Your task to perform on an android device: Clear the shopping cart on ebay. Add "jbl flip 4" to the cart on ebay Image 0: 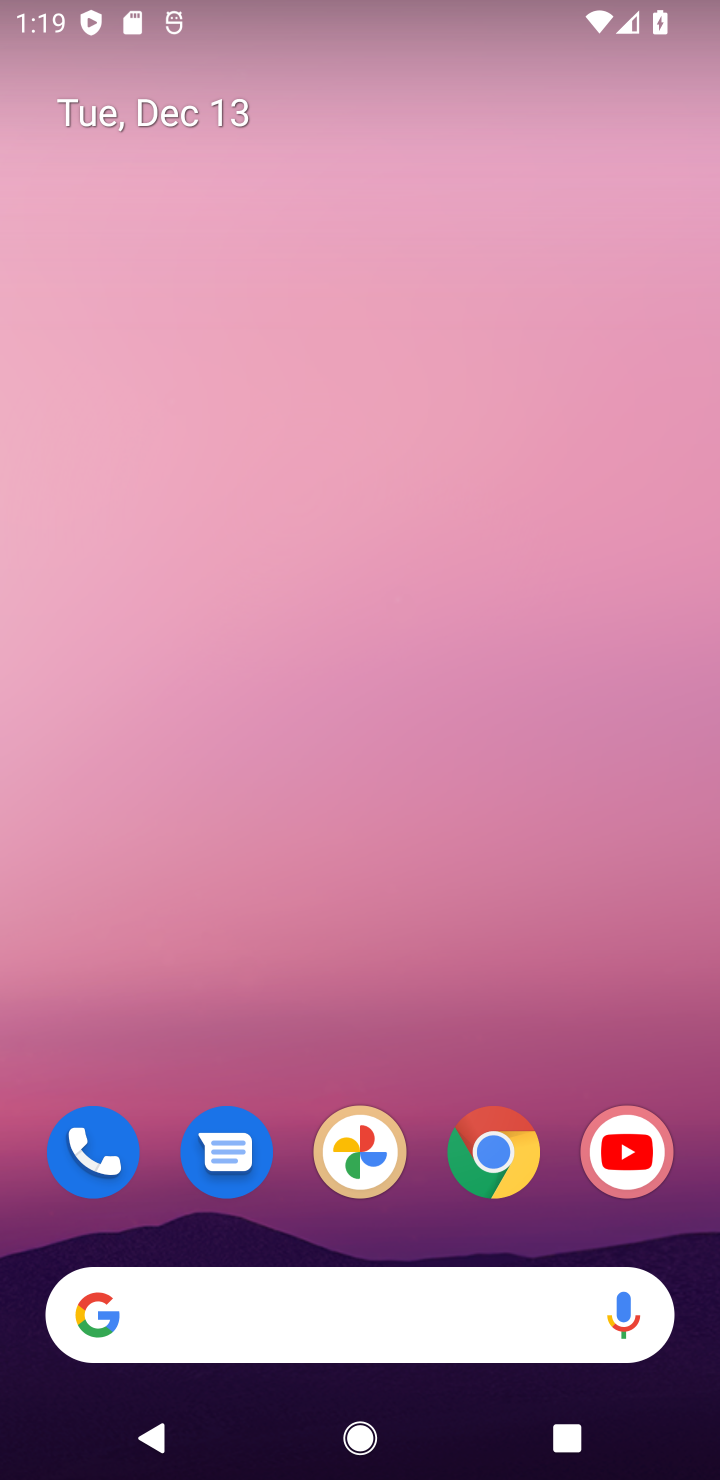
Step 0: drag from (251, 700) to (247, 347)
Your task to perform on an android device: Clear the shopping cart on ebay. Add "jbl flip 4" to the cart on ebay Image 1: 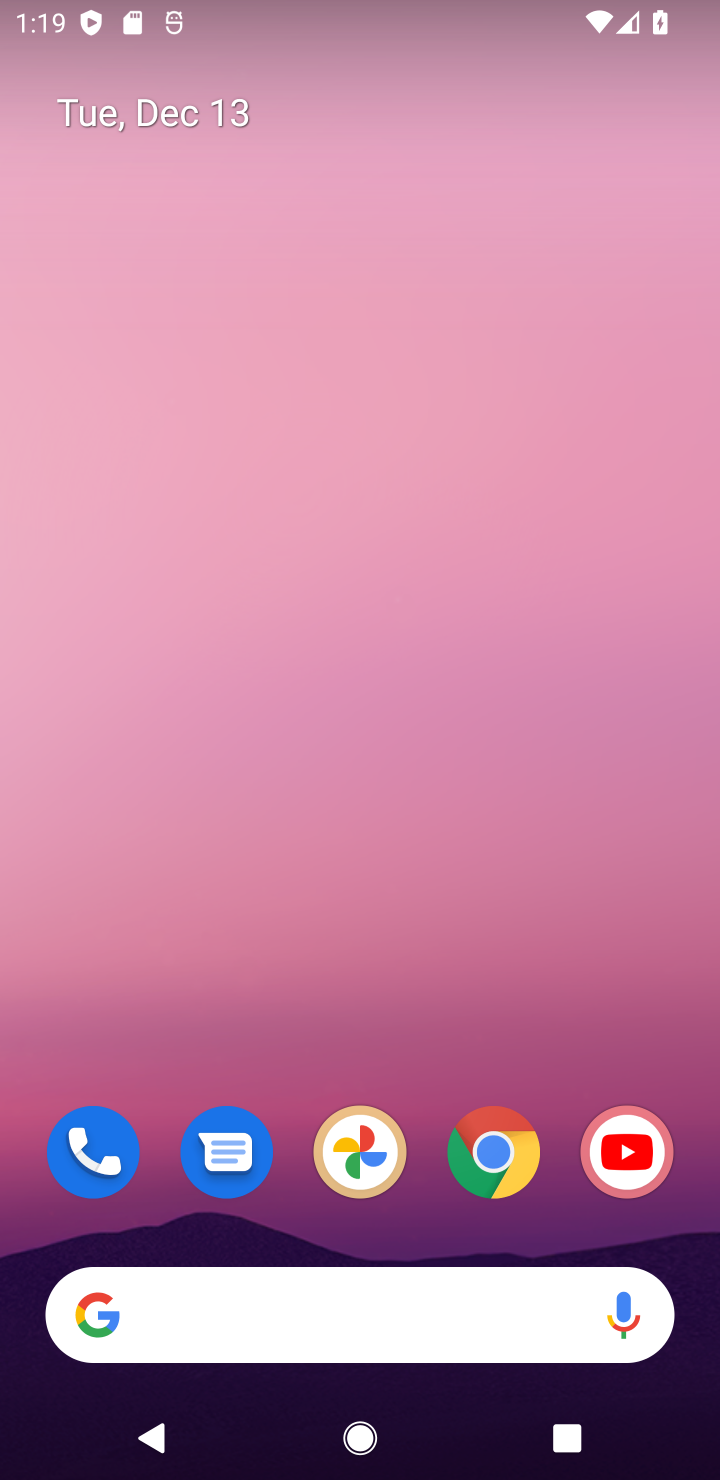
Step 1: drag from (389, 1275) to (405, 531)
Your task to perform on an android device: Clear the shopping cart on ebay. Add "jbl flip 4" to the cart on ebay Image 2: 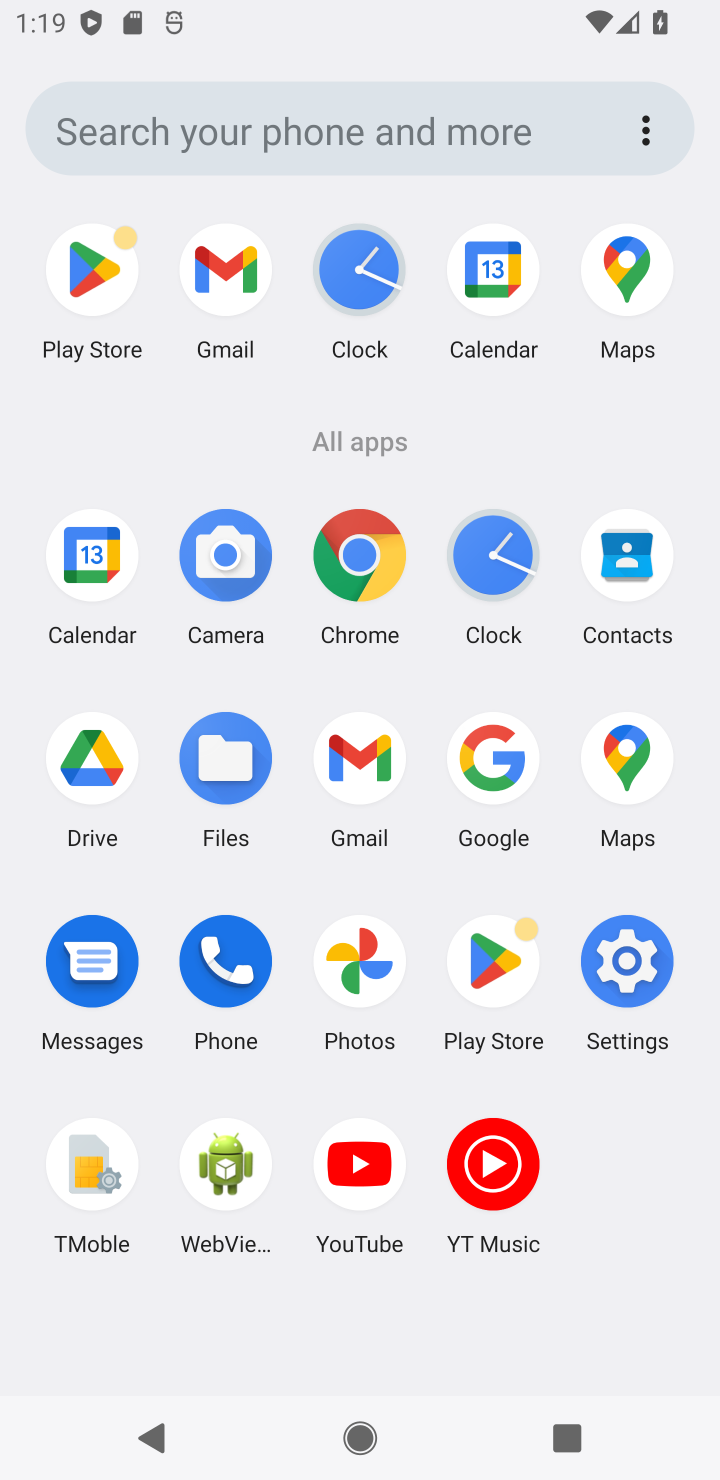
Step 2: click (496, 751)
Your task to perform on an android device: Clear the shopping cart on ebay. Add "jbl flip 4" to the cart on ebay Image 3: 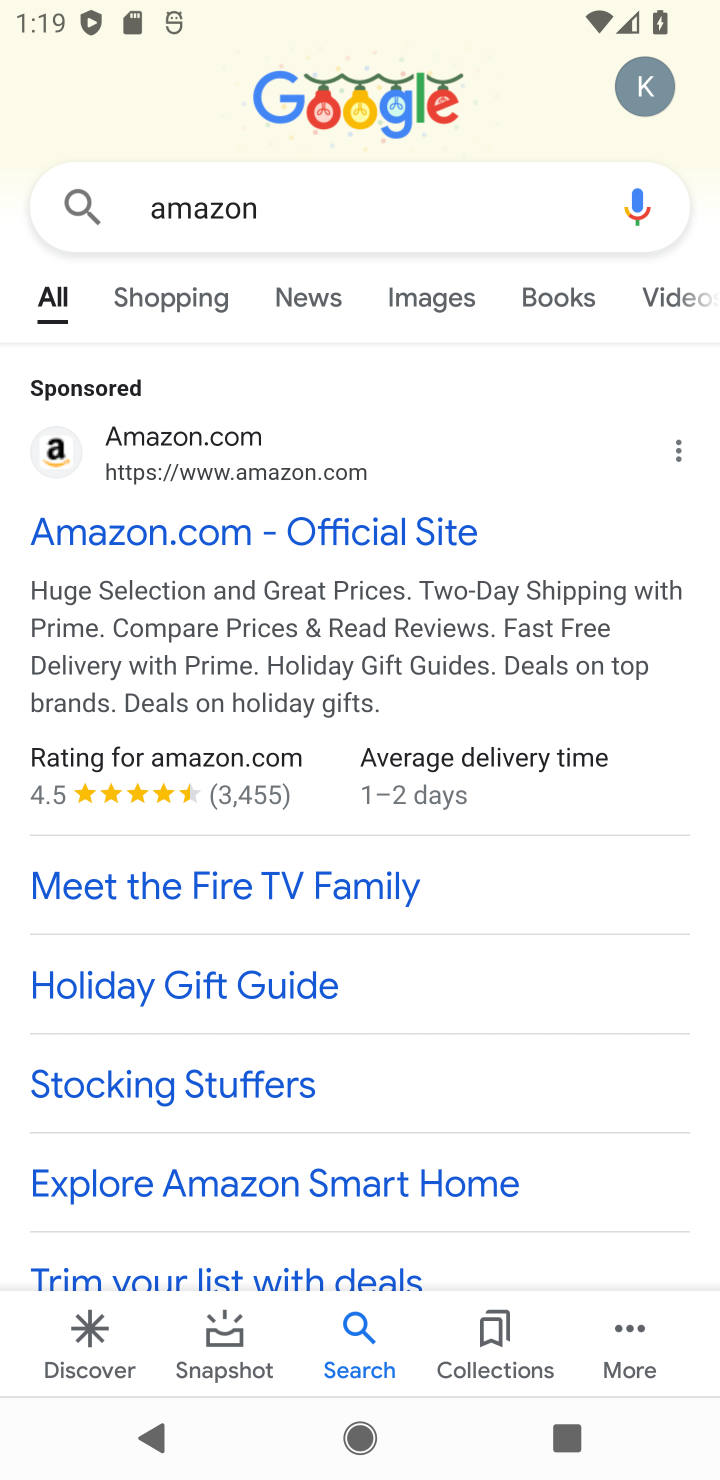
Step 3: click (198, 192)
Your task to perform on an android device: Clear the shopping cart on ebay. Add "jbl flip 4" to the cart on ebay Image 4: 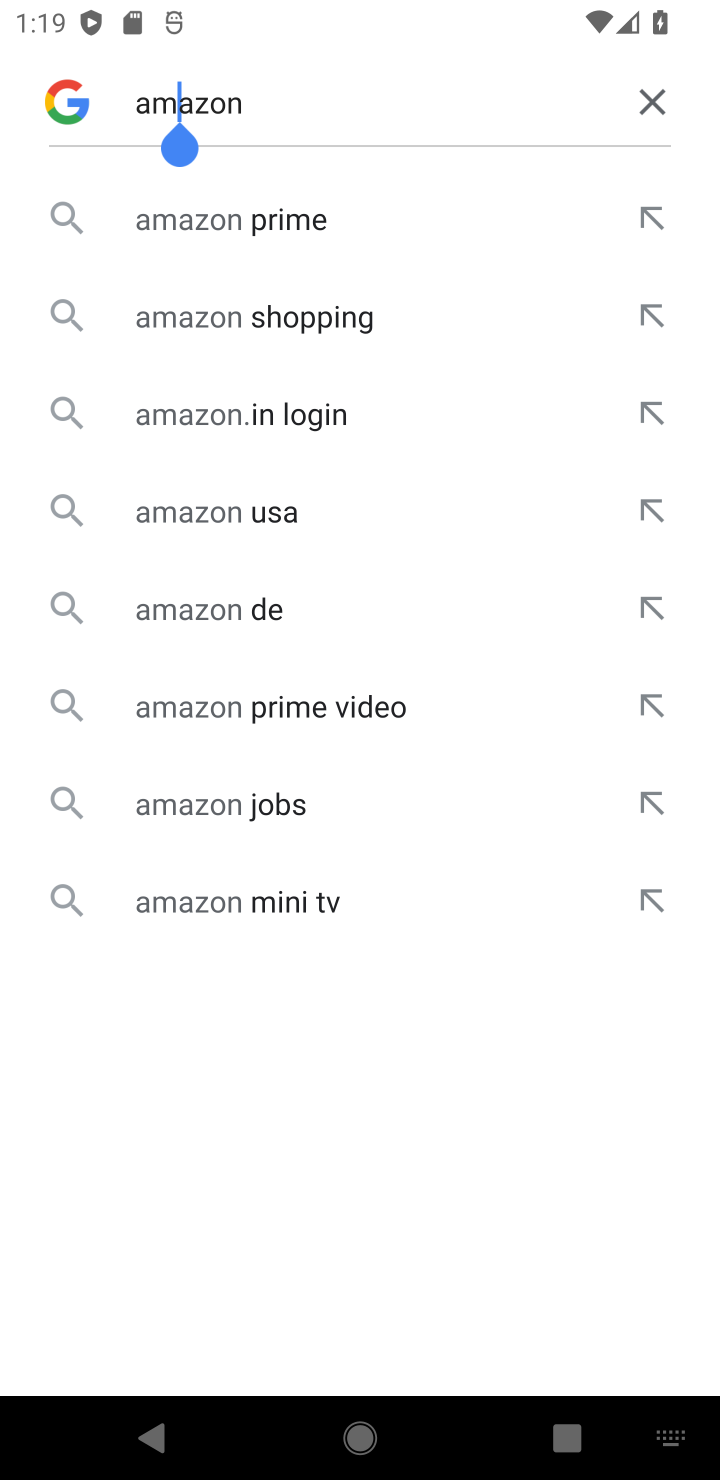
Step 4: click (650, 109)
Your task to perform on an android device: Clear the shopping cart on ebay. Add "jbl flip 4" to the cart on ebay Image 5: 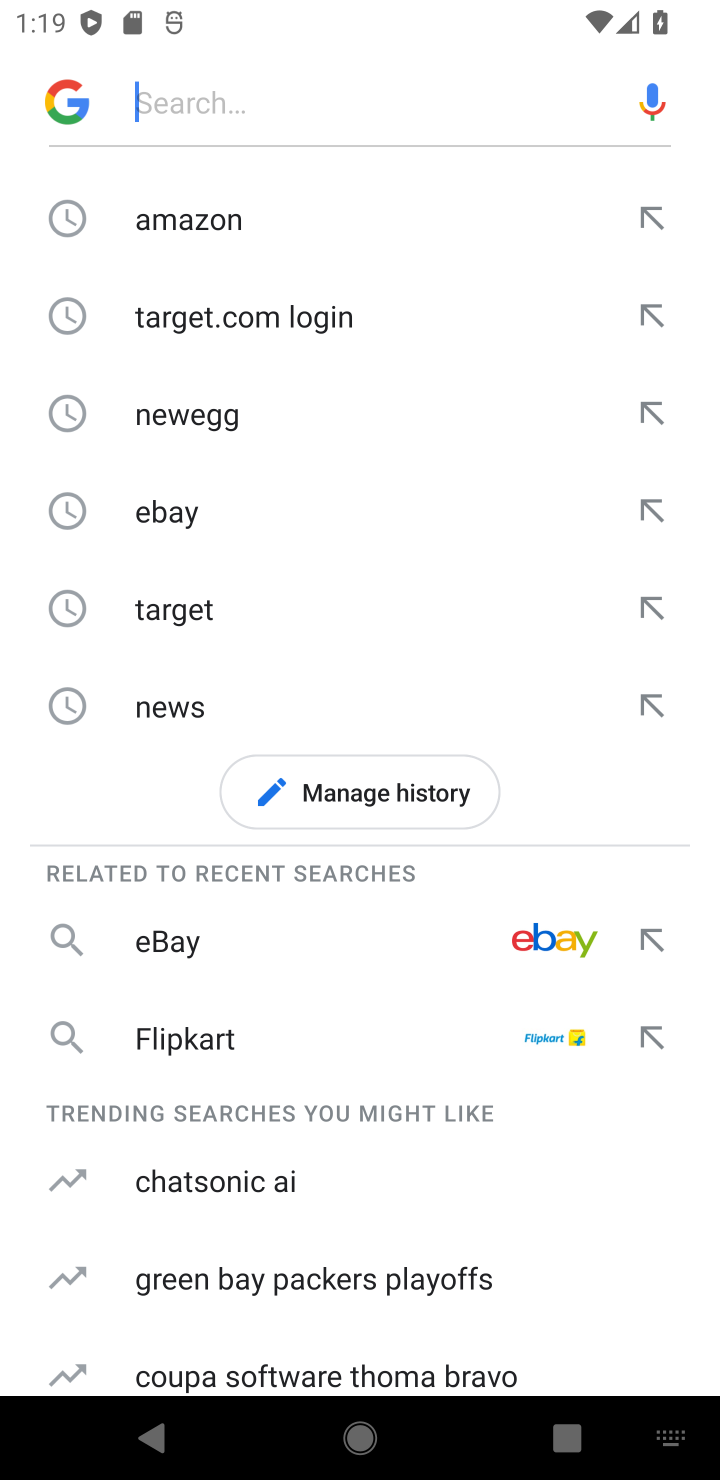
Step 5: click (190, 522)
Your task to perform on an android device: Clear the shopping cart on ebay. Add "jbl flip 4" to the cart on ebay Image 6: 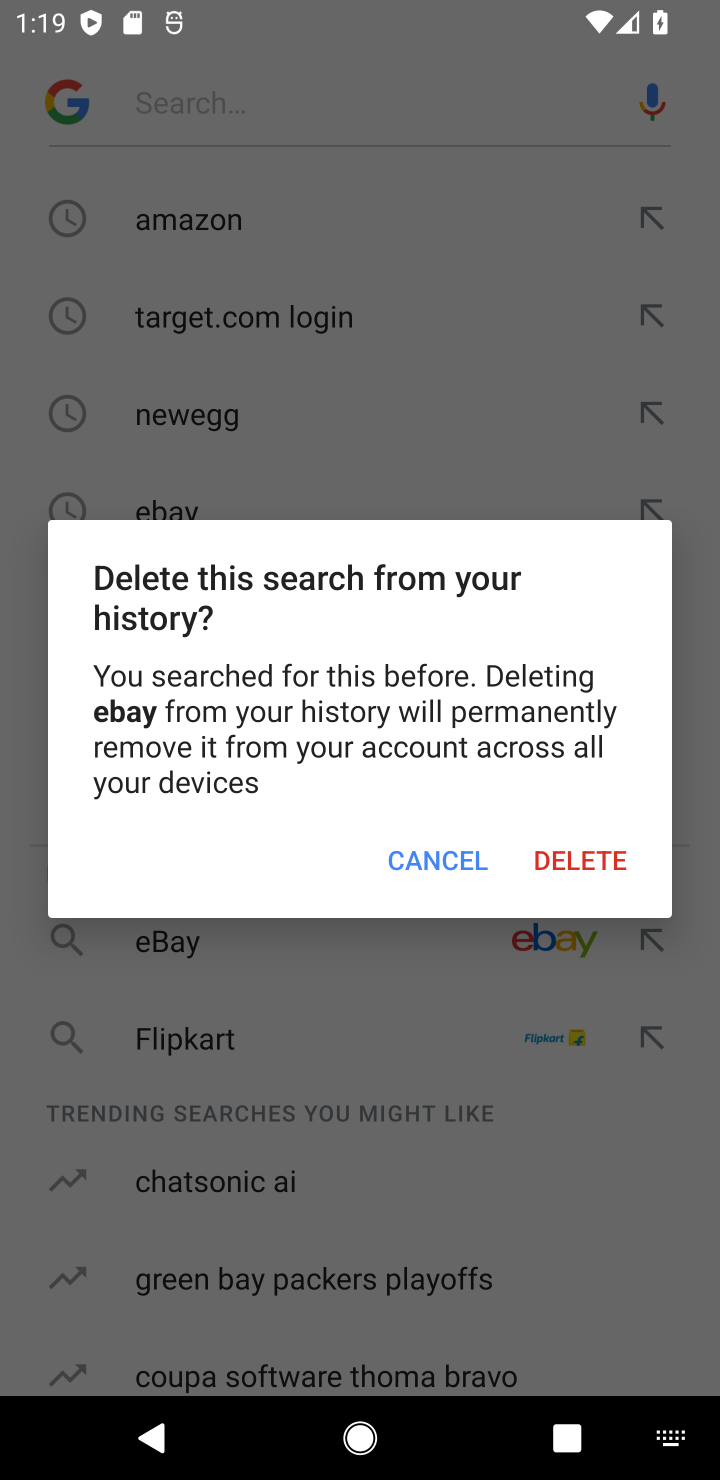
Step 6: click (391, 854)
Your task to perform on an android device: Clear the shopping cart on ebay. Add "jbl flip 4" to the cart on ebay Image 7: 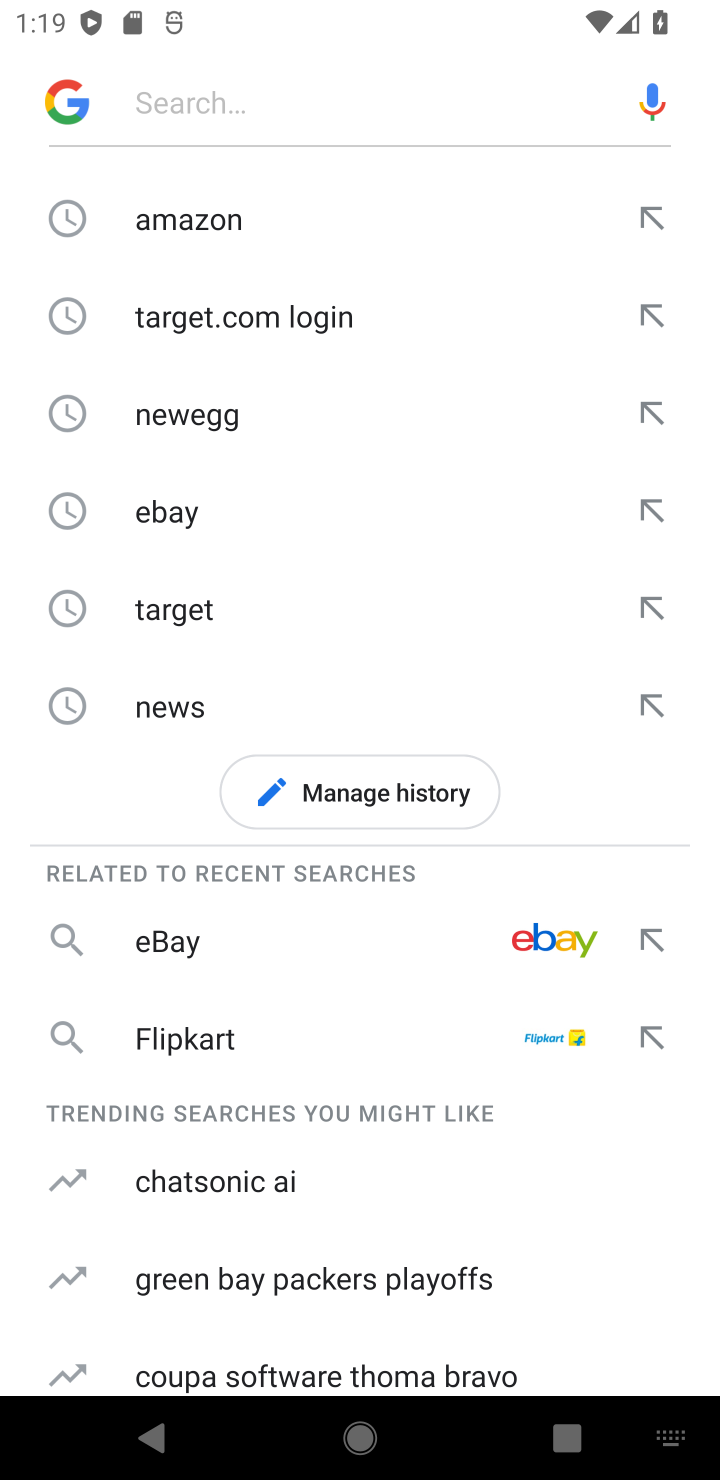
Step 7: click (661, 498)
Your task to perform on an android device: Clear the shopping cart on ebay. Add "jbl flip 4" to the cart on ebay Image 8: 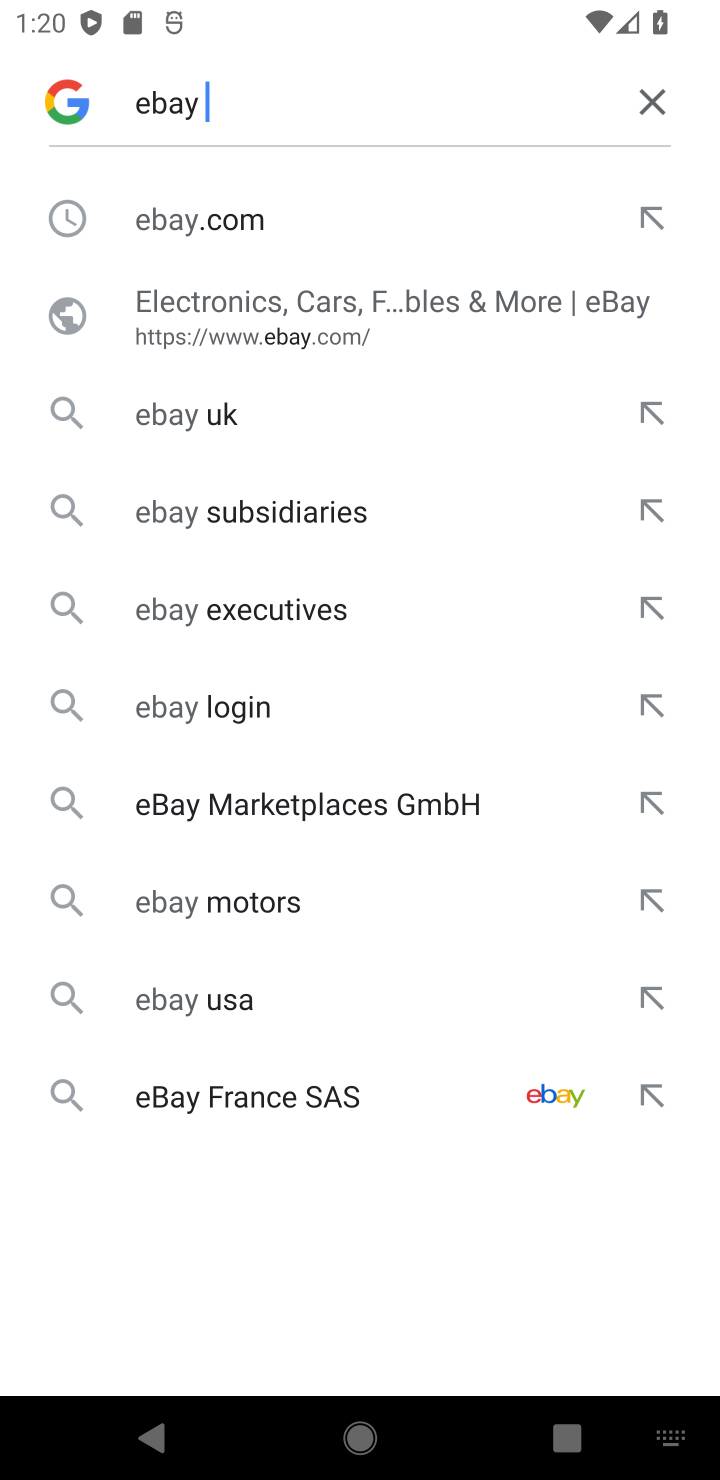
Step 8: click (210, 320)
Your task to perform on an android device: Clear the shopping cart on ebay. Add "jbl flip 4" to the cart on ebay Image 9: 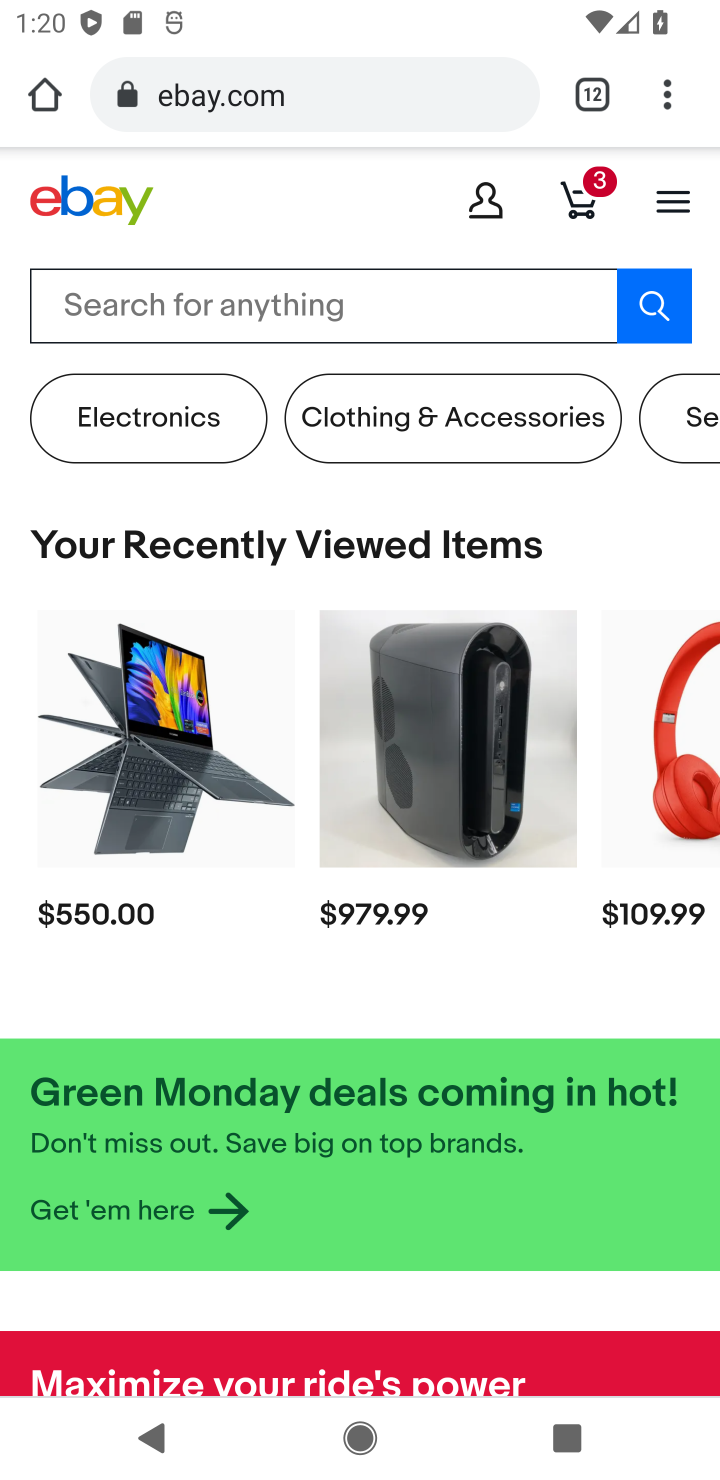
Step 9: click (182, 287)
Your task to perform on an android device: Clear the shopping cart on ebay. Add "jbl flip 4" to the cart on ebay Image 10: 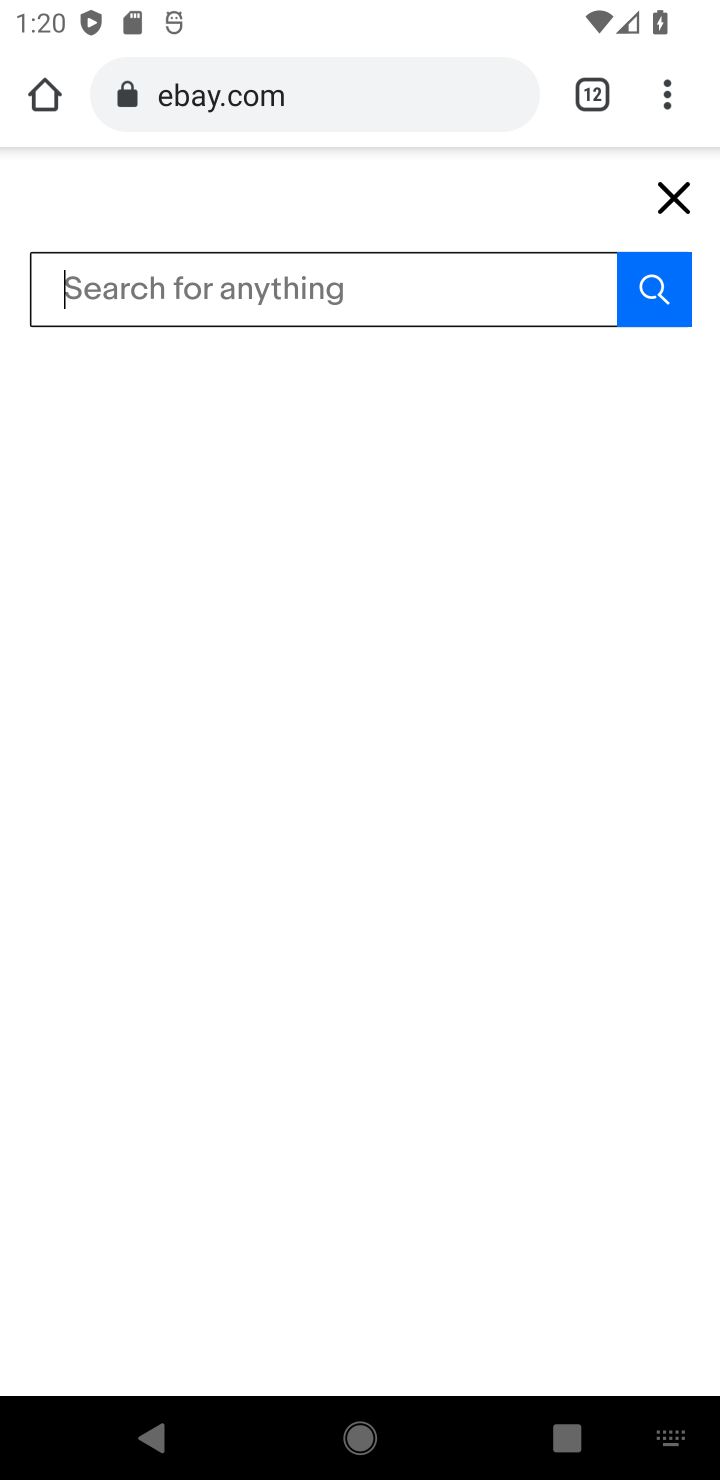
Step 10: type "jbl flip 4"
Your task to perform on an android device: Clear the shopping cart on ebay. Add "jbl flip 4" to the cart on ebay Image 11: 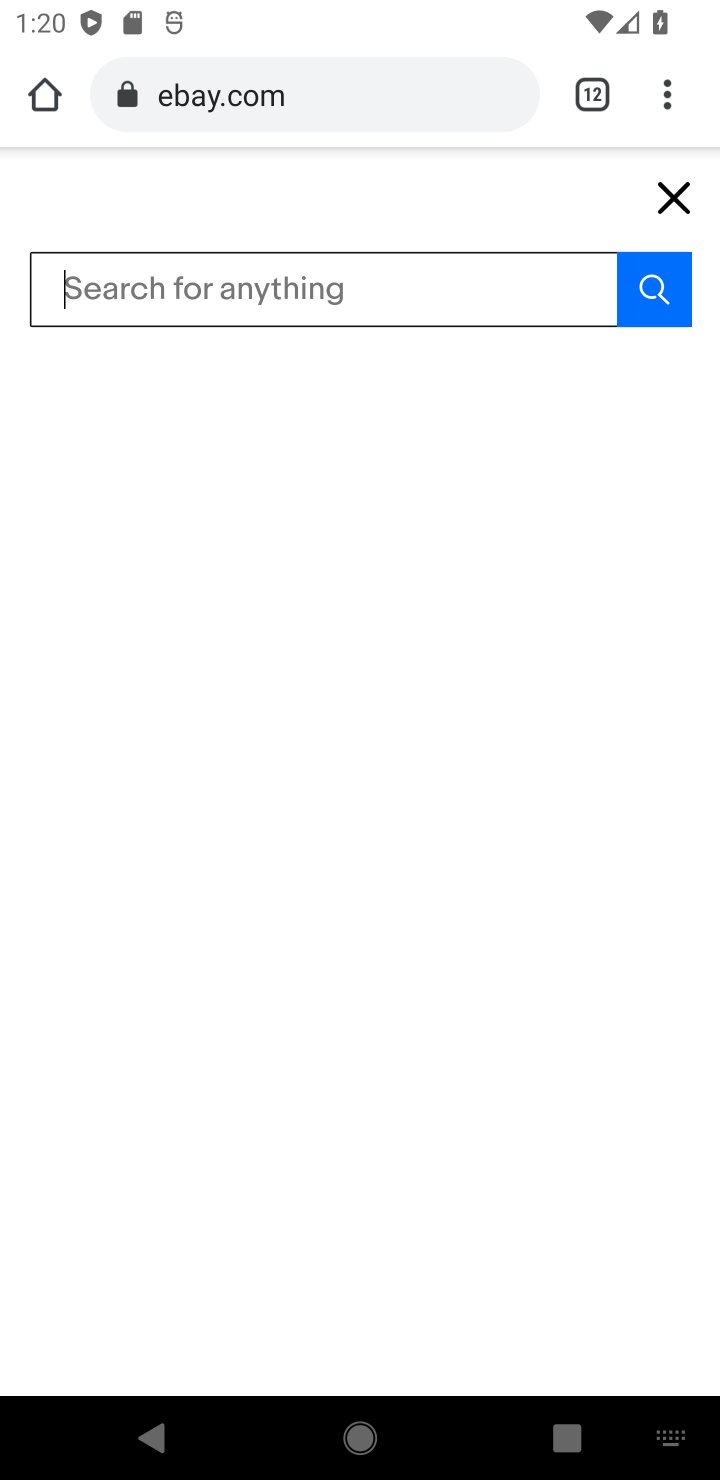
Step 11: click (656, 289)
Your task to perform on an android device: Clear the shopping cart on ebay. Add "jbl flip 4" to the cart on ebay Image 12: 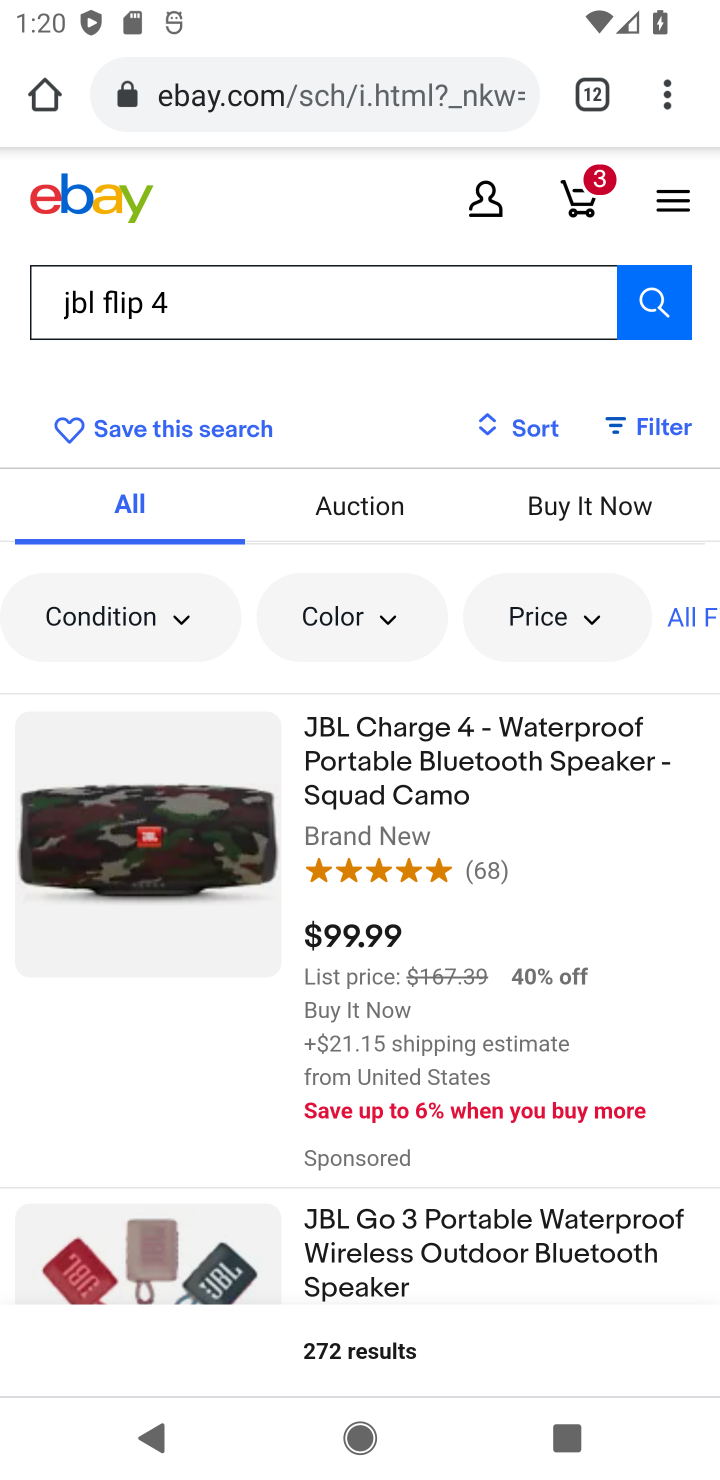
Step 12: click (224, 851)
Your task to perform on an android device: Clear the shopping cart on ebay. Add "jbl flip 4" to the cart on ebay Image 13: 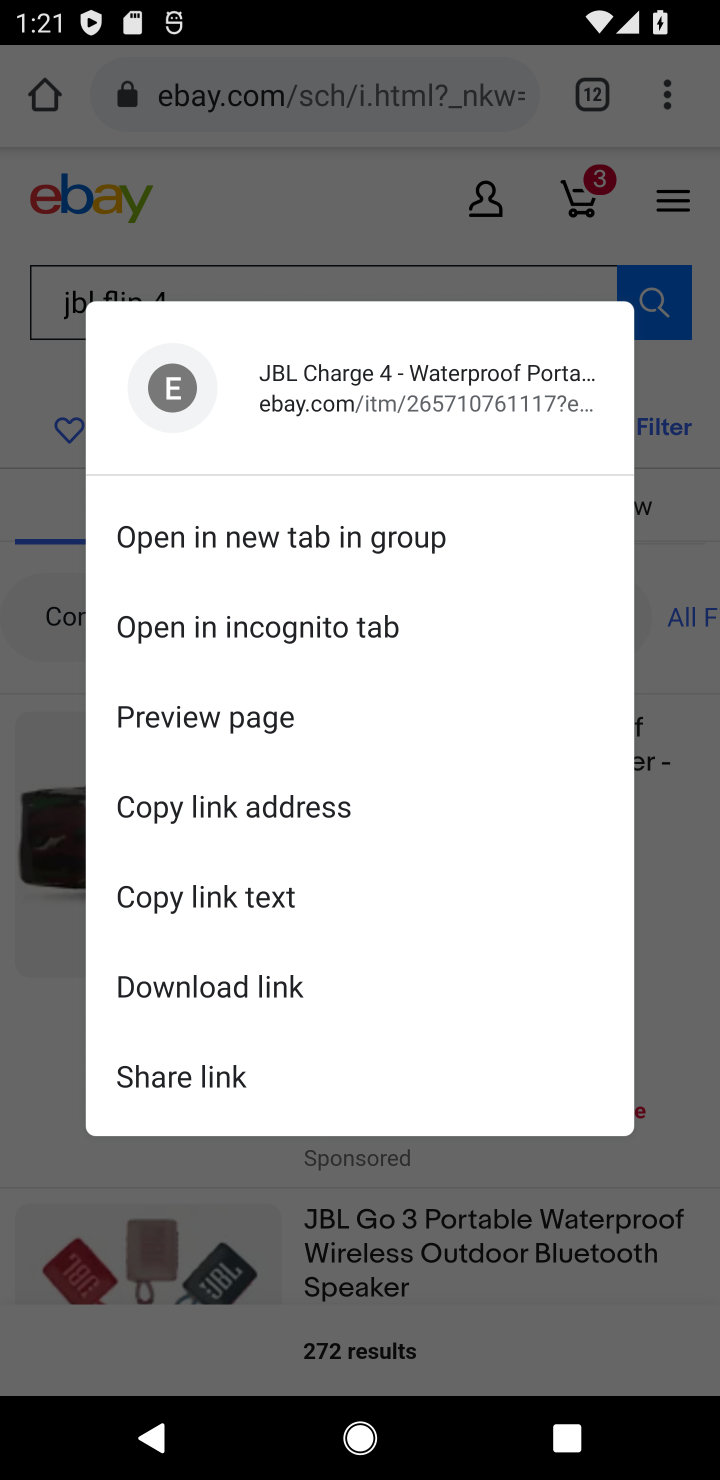
Step 13: click (36, 510)
Your task to perform on an android device: Clear the shopping cart on ebay. Add "jbl flip 4" to the cart on ebay Image 14: 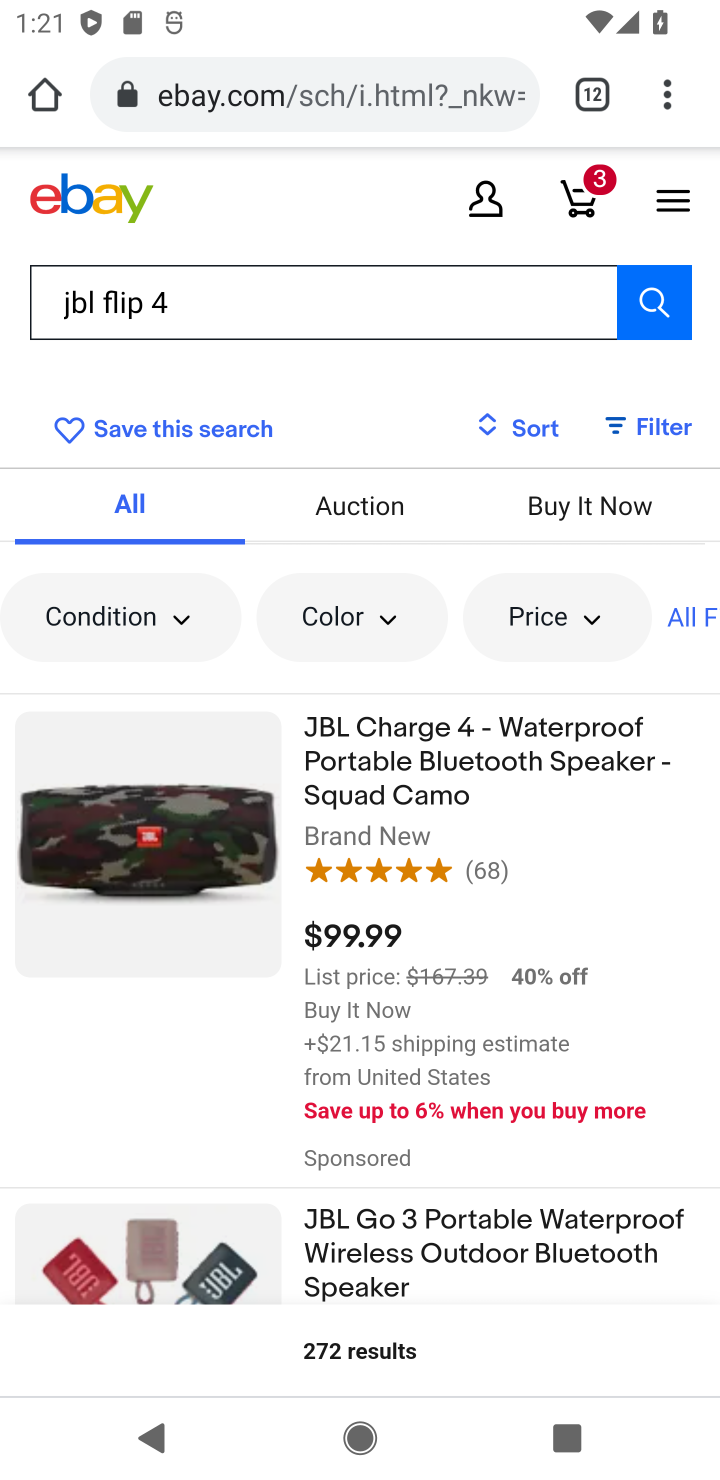
Step 14: click (402, 741)
Your task to perform on an android device: Clear the shopping cart on ebay. Add "jbl flip 4" to the cart on ebay Image 15: 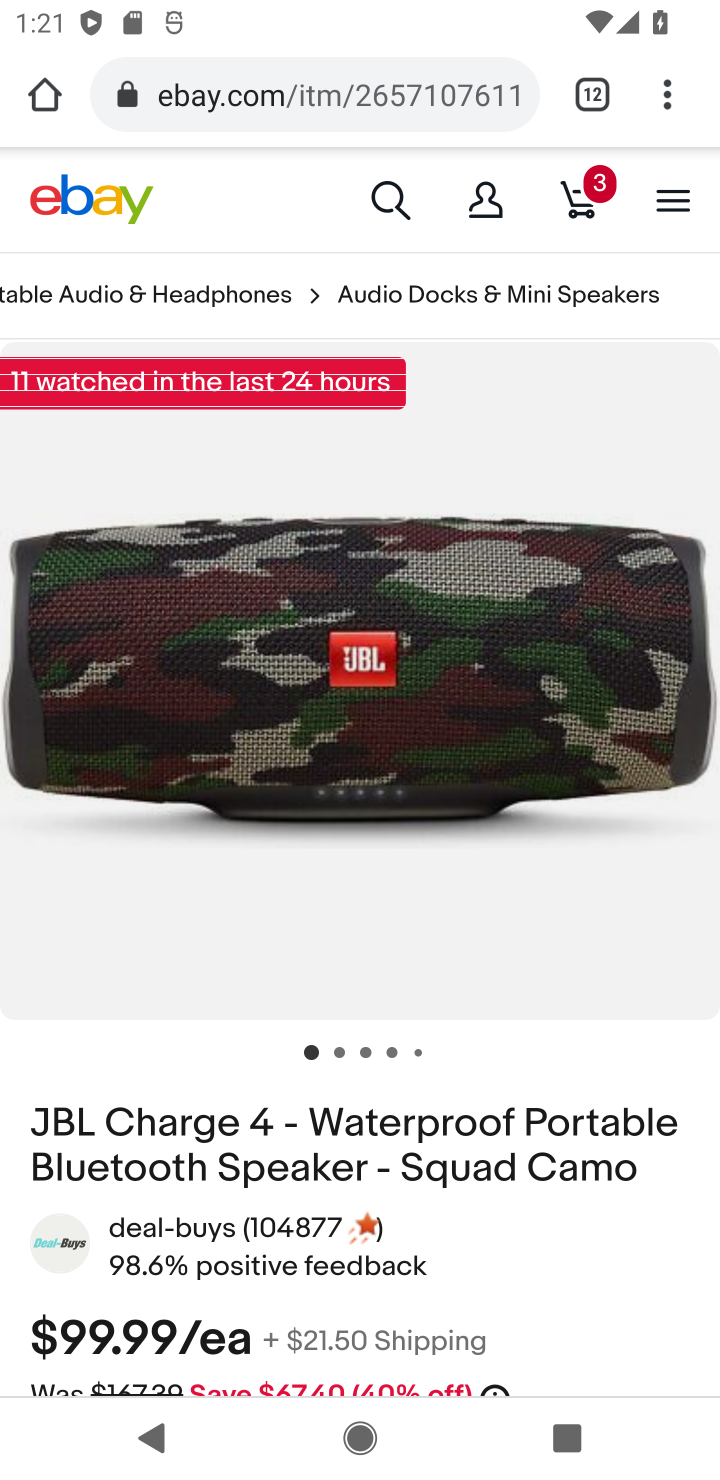
Step 15: drag from (490, 1214) to (444, 596)
Your task to perform on an android device: Clear the shopping cart on ebay. Add "jbl flip 4" to the cart on ebay Image 16: 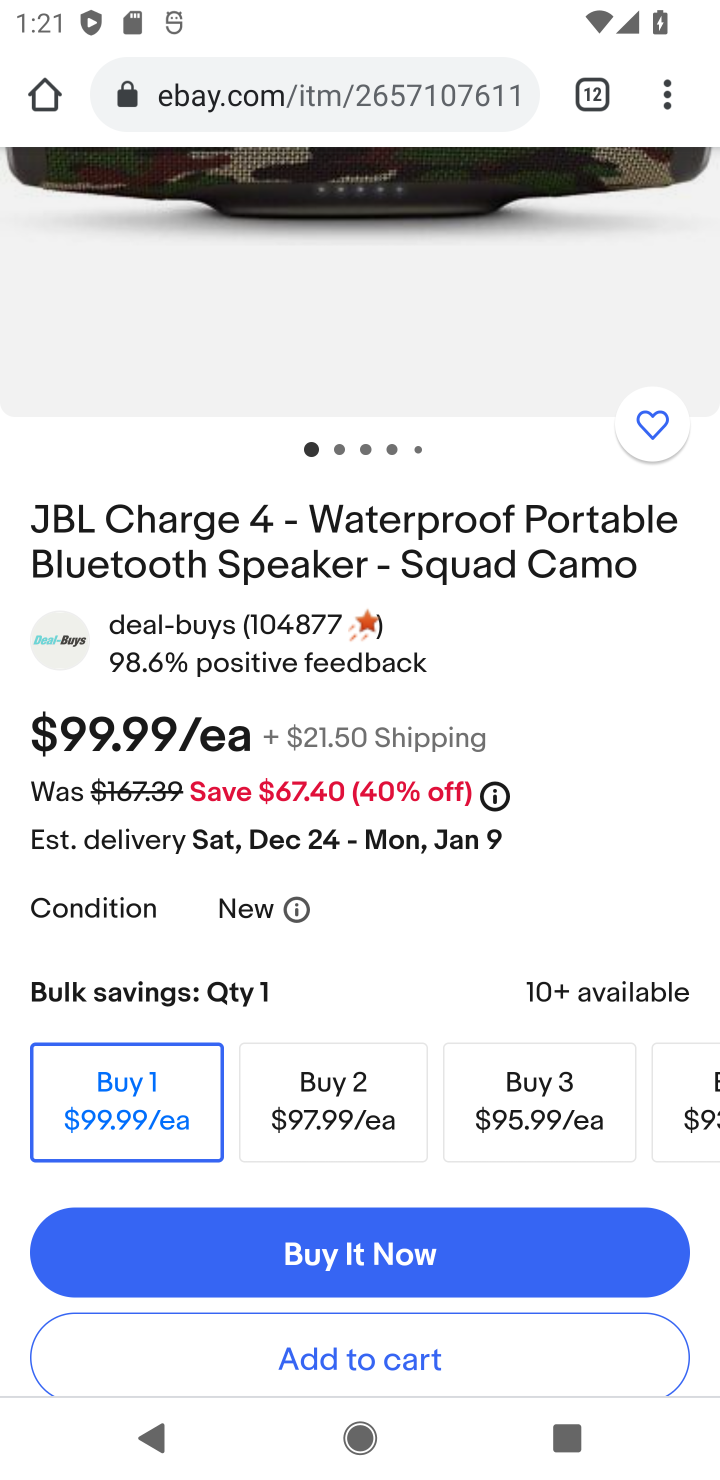
Step 16: click (402, 1346)
Your task to perform on an android device: Clear the shopping cart on ebay. Add "jbl flip 4" to the cart on ebay Image 17: 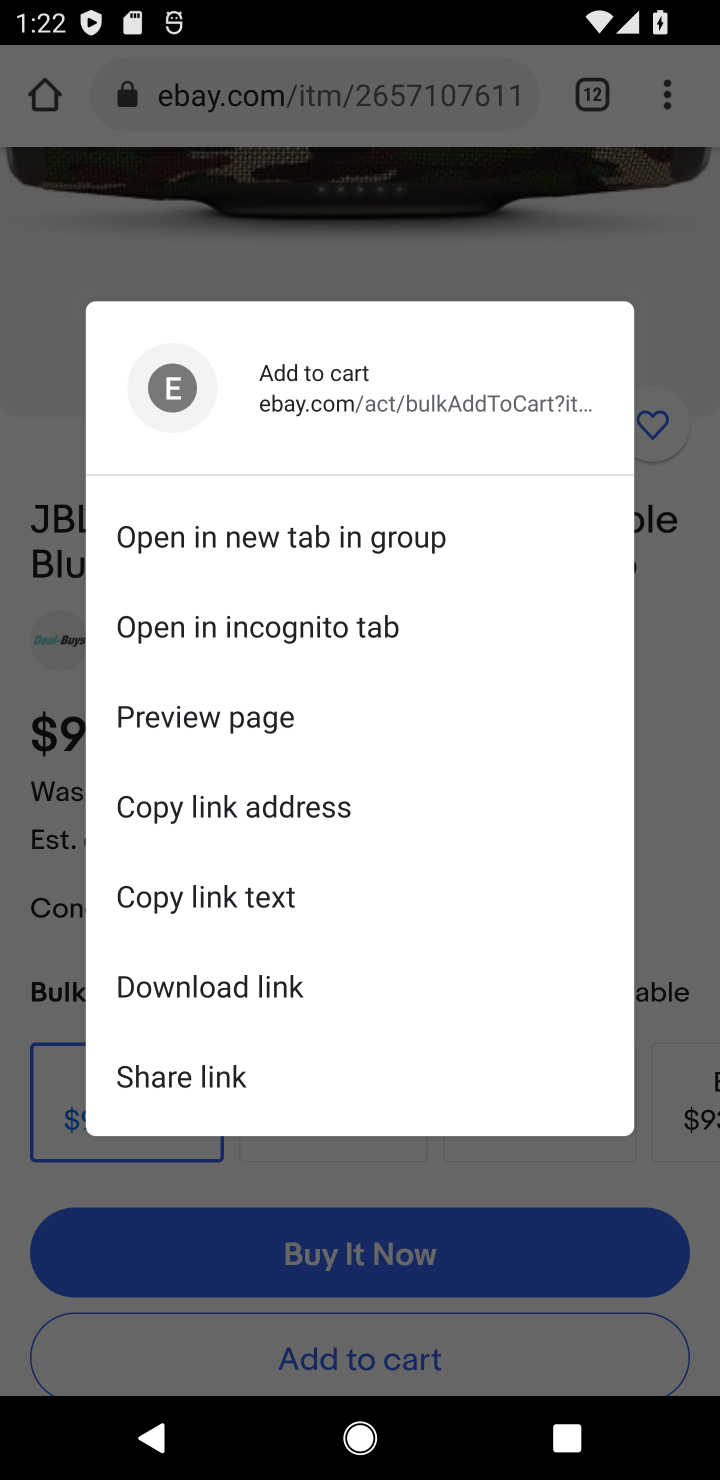
Step 17: click (323, 1155)
Your task to perform on an android device: Clear the shopping cart on ebay. Add "jbl flip 4" to the cart on ebay Image 18: 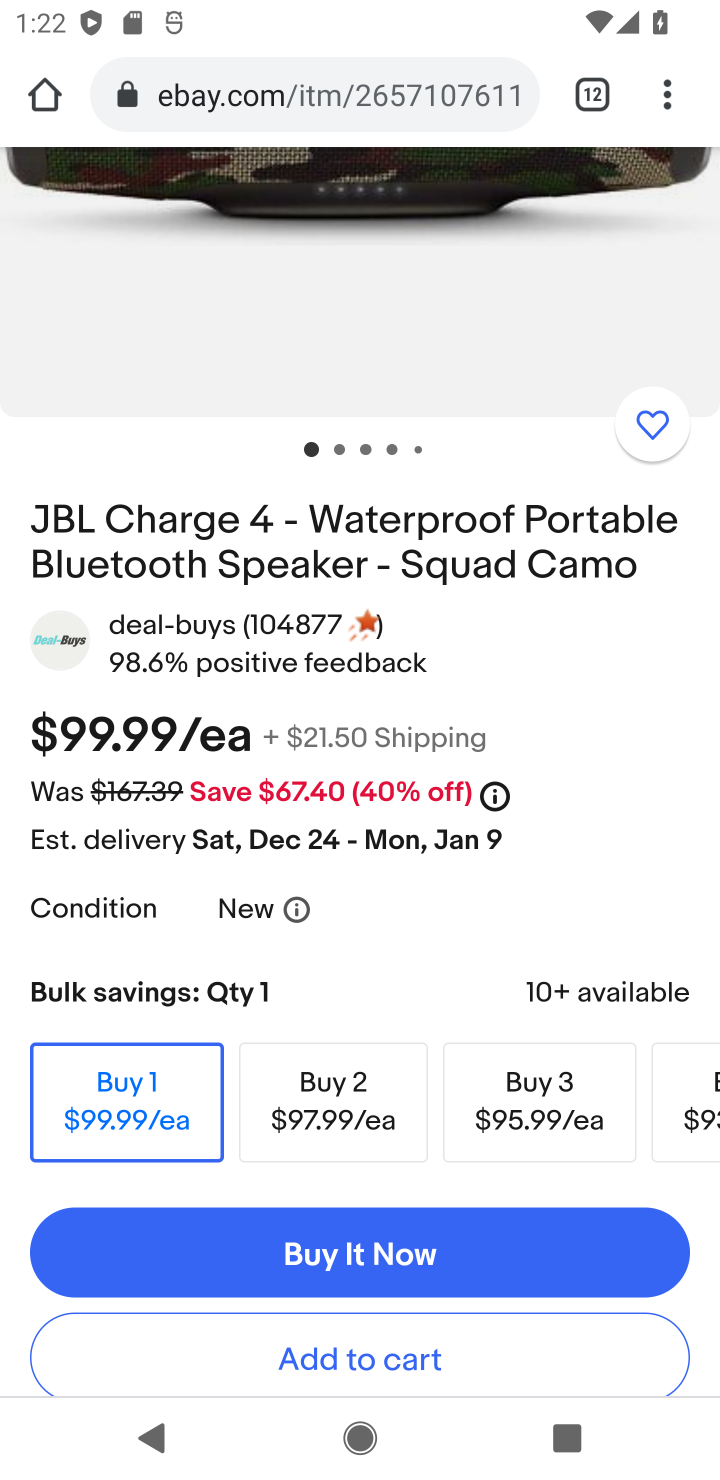
Step 18: click (354, 1361)
Your task to perform on an android device: Clear the shopping cart on ebay. Add "jbl flip 4" to the cart on ebay Image 19: 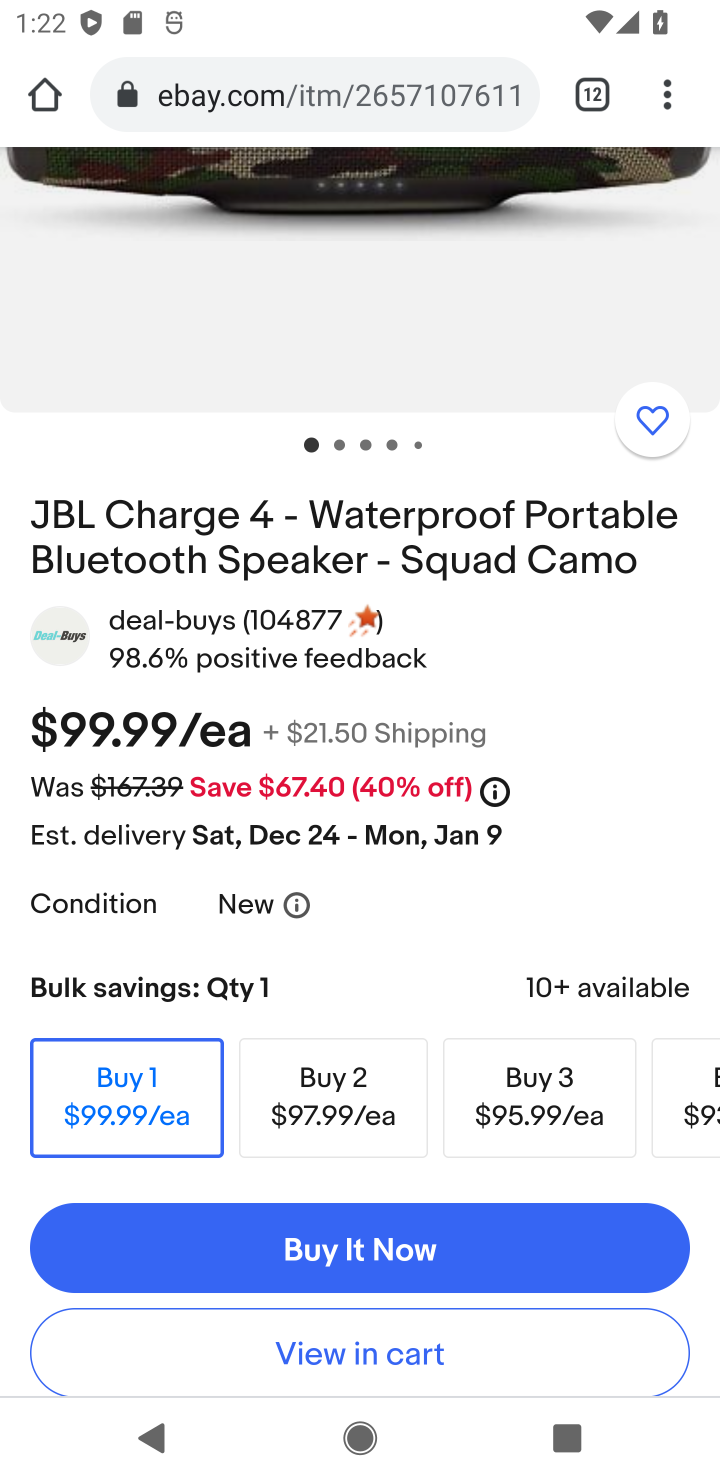
Step 19: task complete